Your task to perform on an android device: change the clock display to digital Image 0: 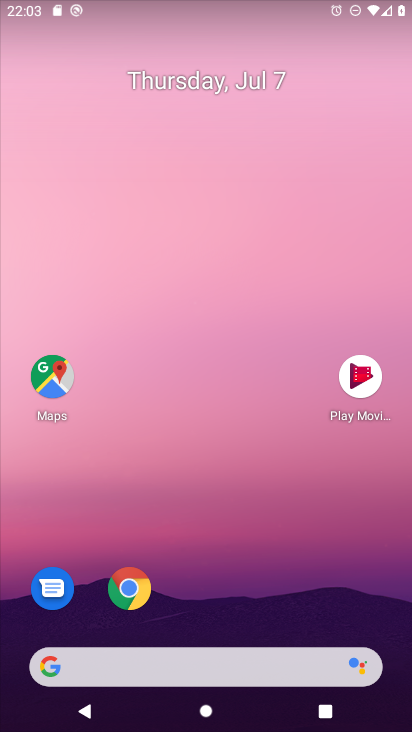
Step 0: drag from (197, 597) to (197, 269)
Your task to perform on an android device: change the clock display to digital Image 1: 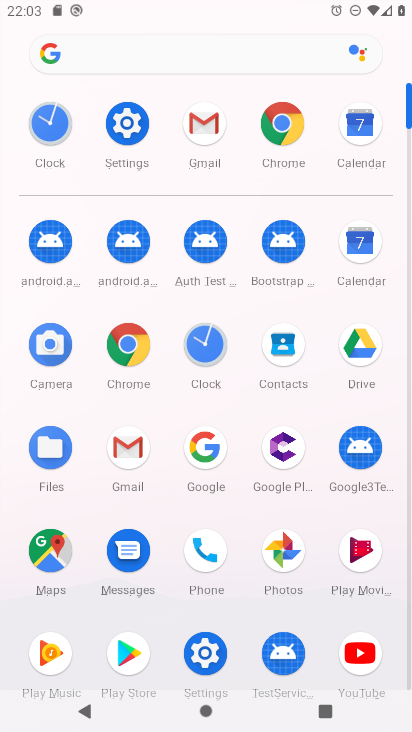
Step 1: click (206, 344)
Your task to perform on an android device: change the clock display to digital Image 2: 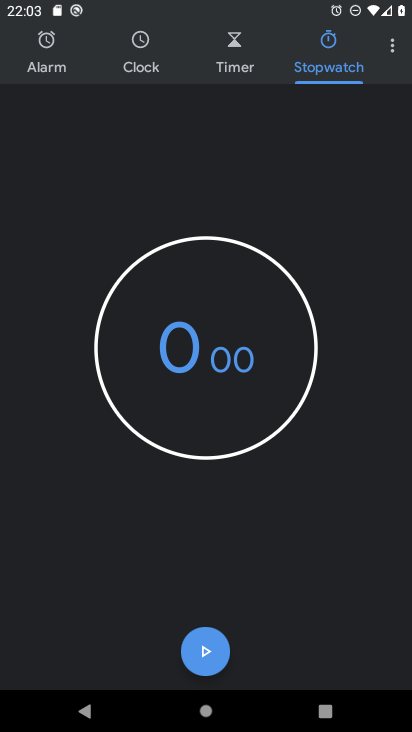
Step 2: click (390, 46)
Your task to perform on an android device: change the clock display to digital Image 3: 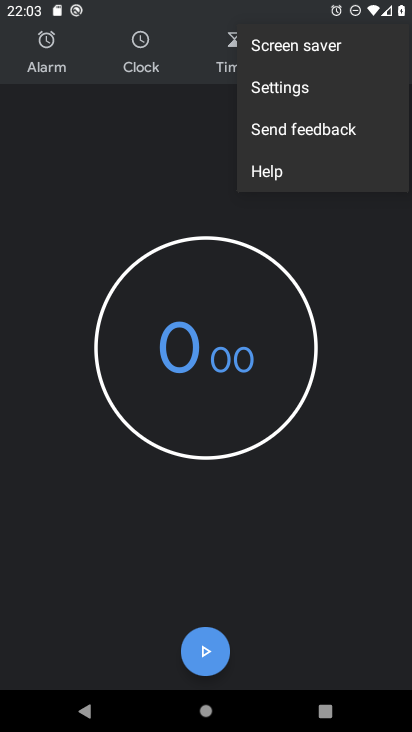
Step 3: click (275, 96)
Your task to perform on an android device: change the clock display to digital Image 4: 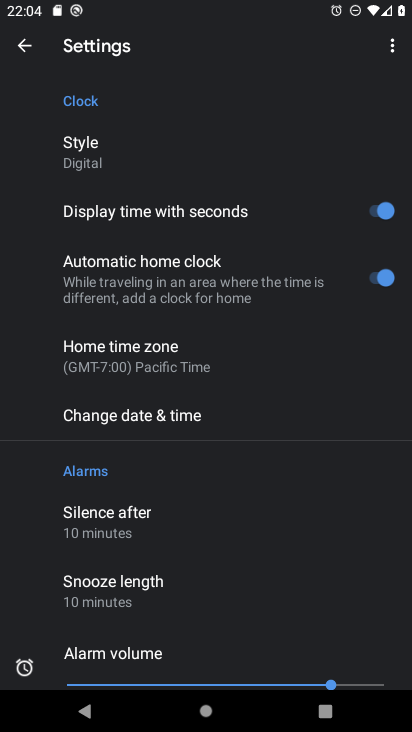
Step 4: click (91, 151)
Your task to perform on an android device: change the clock display to digital Image 5: 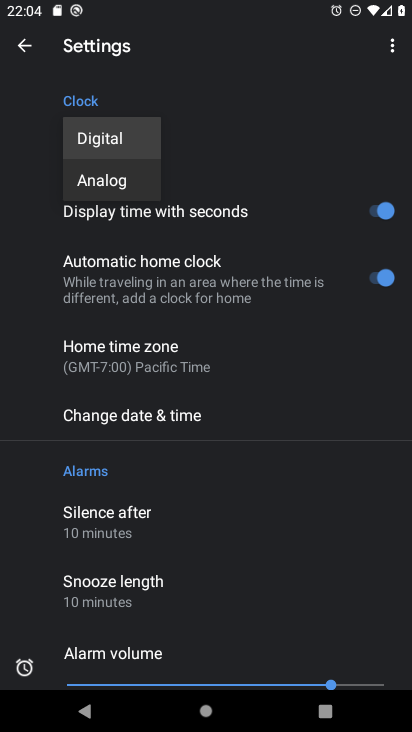
Step 5: task complete